Your task to perform on an android device: toggle javascript in the chrome app Image 0: 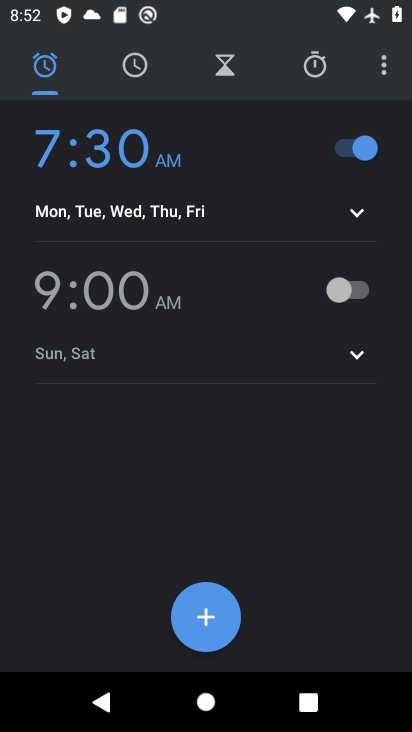
Step 0: press home button
Your task to perform on an android device: toggle javascript in the chrome app Image 1: 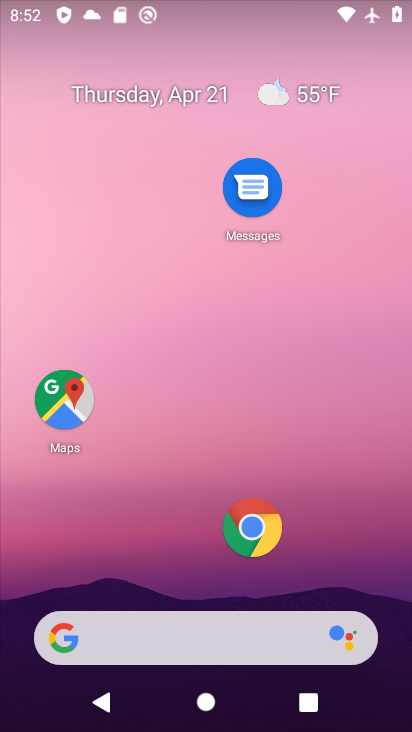
Step 1: drag from (136, 613) to (251, 152)
Your task to perform on an android device: toggle javascript in the chrome app Image 2: 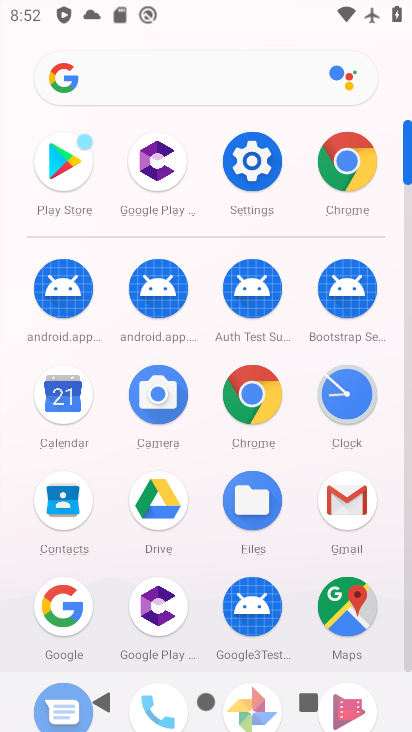
Step 2: click (340, 180)
Your task to perform on an android device: toggle javascript in the chrome app Image 3: 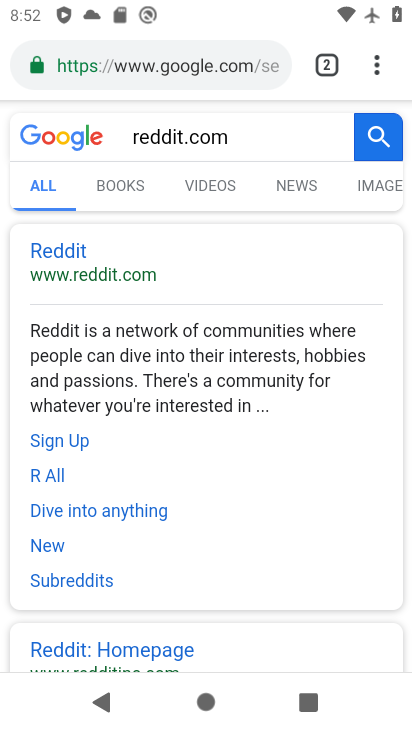
Step 3: click (365, 77)
Your task to perform on an android device: toggle javascript in the chrome app Image 4: 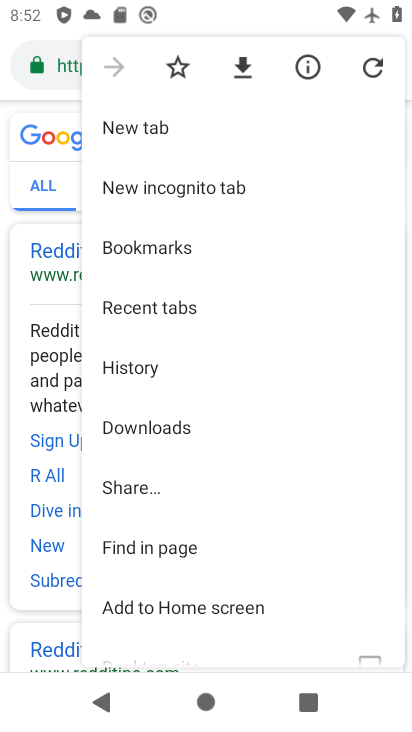
Step 4: drag from (243, 512) to (343, 269)
Your task to perform on an android device: toggle javascript in the chrome app Image 5: 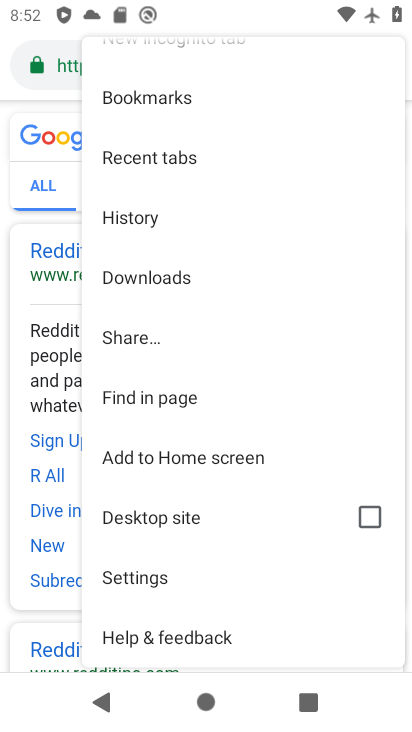
Step 5: click (136, 578)
Your task to perform on an android device: toggle javascript in the chrome app Image 6: 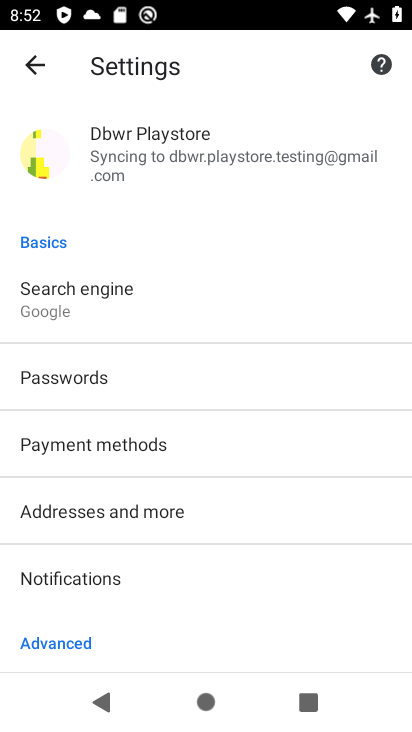
Step 6: drag from (160, 571) to (269, 163)
Your task to perform on an android device: toggle javascript in the chrome app Image 7: 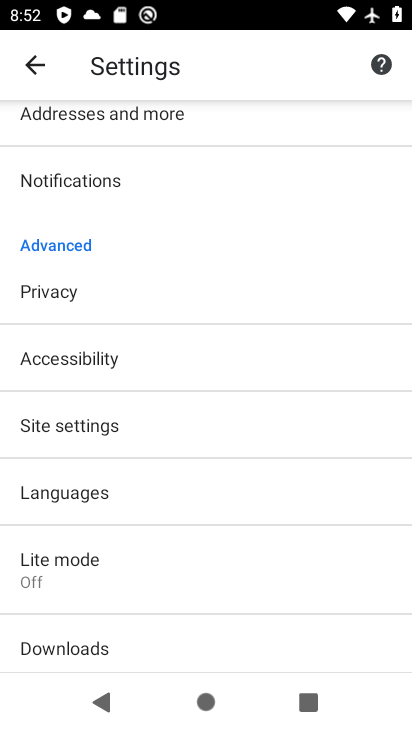
Step 7: click (93, 413)
Your task to perform on an android device: toggle javascript in the chrome app Image 8: 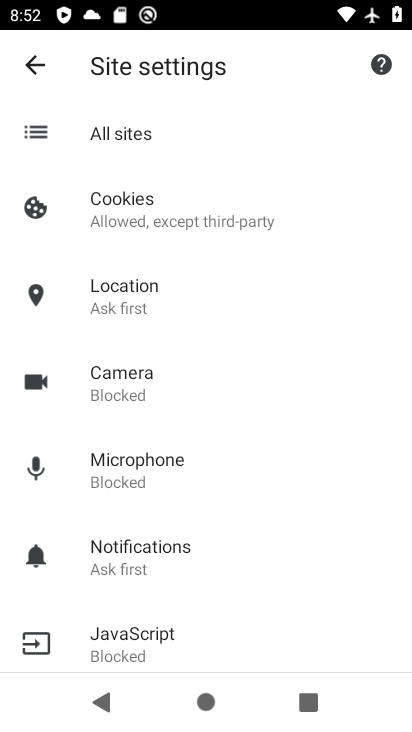
Step 8: drag from (210, 545) to (288, 330)
Your task to perform on an android device: toggle javascript in the chrome app Image 9: 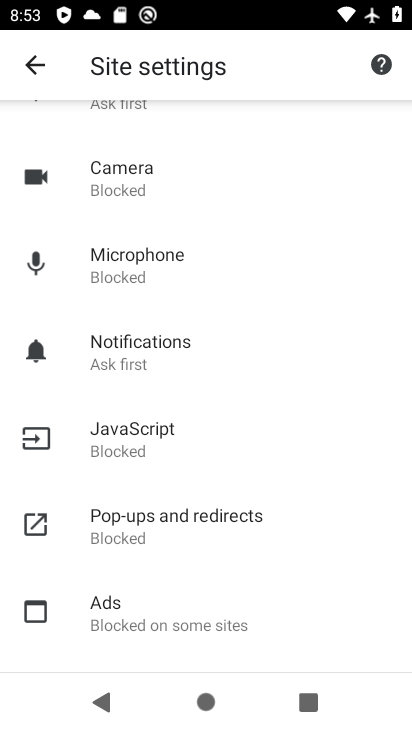
Step 9: click (154, 426)
Your task to perform on an android device: toggle javascript in the chrome app Image 10: 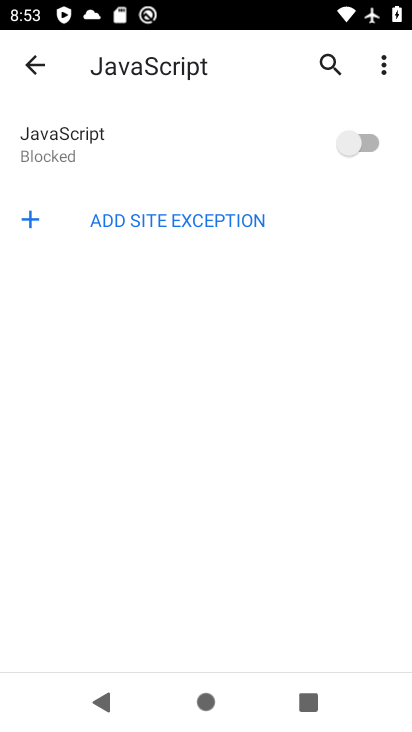
Step 10: click (371, 145)
Your task to perform on an android device: toggle javascript in the chrome app Image 11: 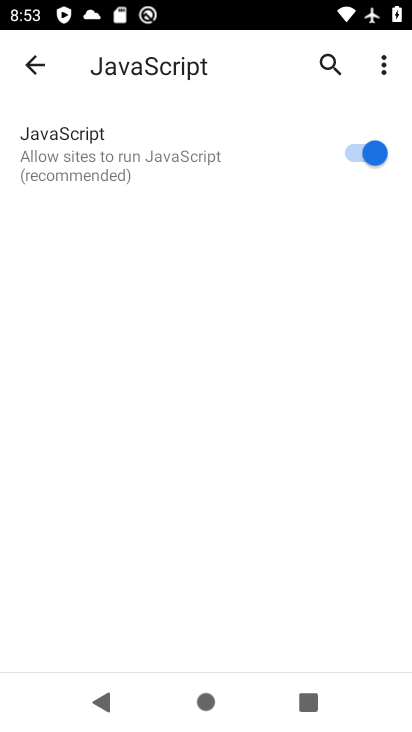
Step 11: task complete